Your task to perform on an android device: Open the web browser Image 0: 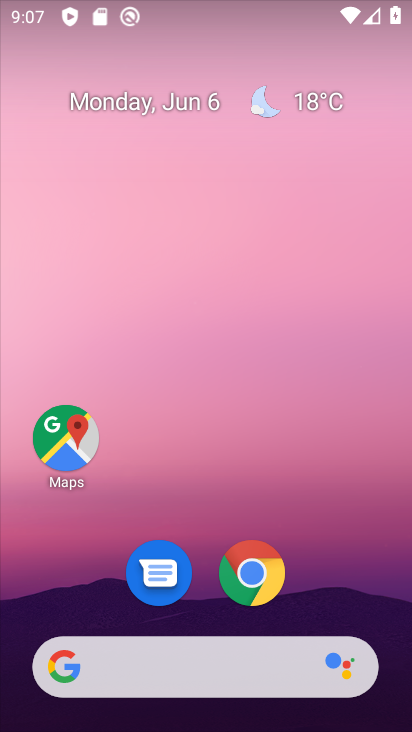
Step 0: click (254, 569)
Your task to perform on an android device: Open the web browser Image 1: 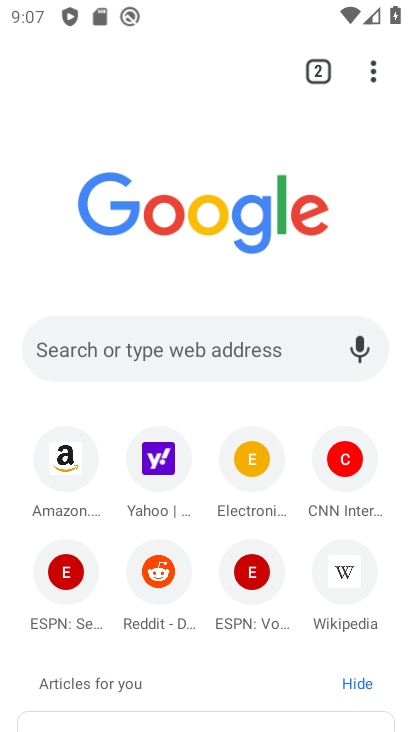
Step 1: task complete